Your task to perform on an android device: Show me the alarms in the clock app Image 0: 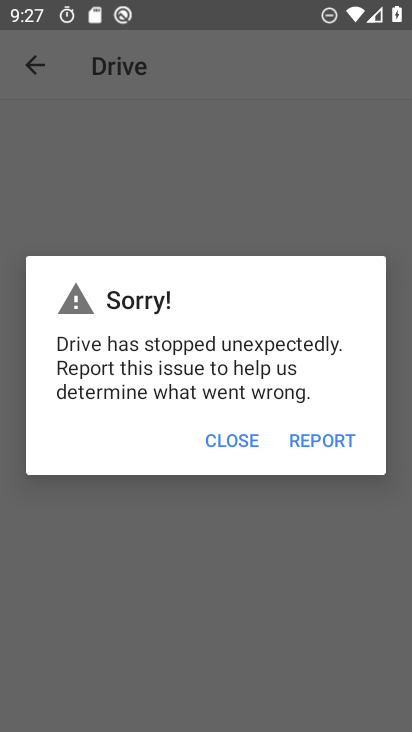
Step 0: press home button
Your task to perform on an android device: Show me the alarms in the clock app Image 1: 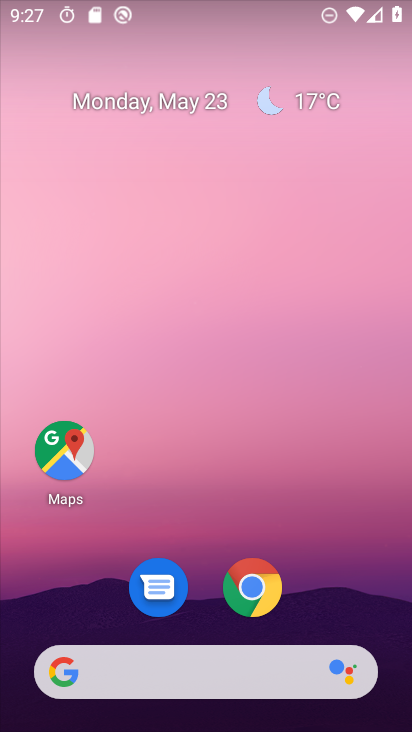
Step 1: drag from (242, 502) to (278, 39)
Your task to perform on an android device: Show me the alarms in the clock app Image 2: 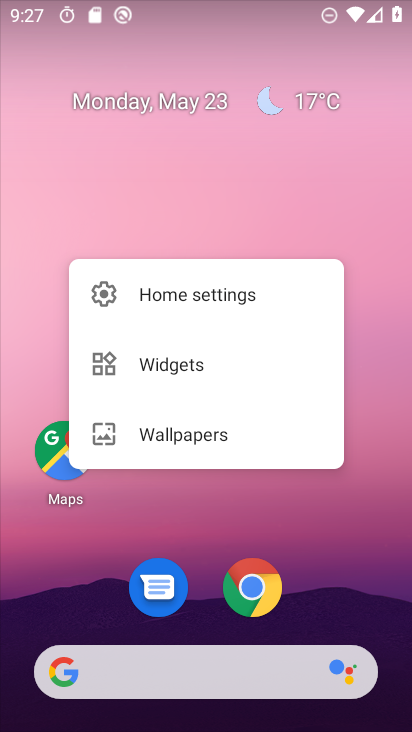
Step 2: click (202, 172)
Your task to perform on an android device: Show me the alarms in the clock app Image 3: 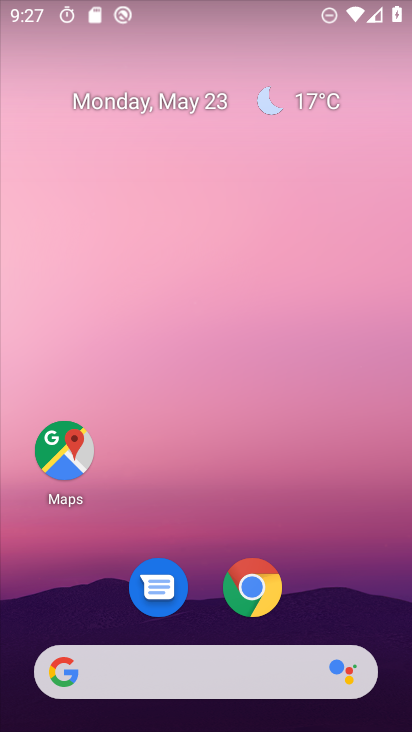
Step 3: drag from (195, 537) to (262, 68)
Your task to perform on an android device: Show me the alarms in the clock app Image 4: 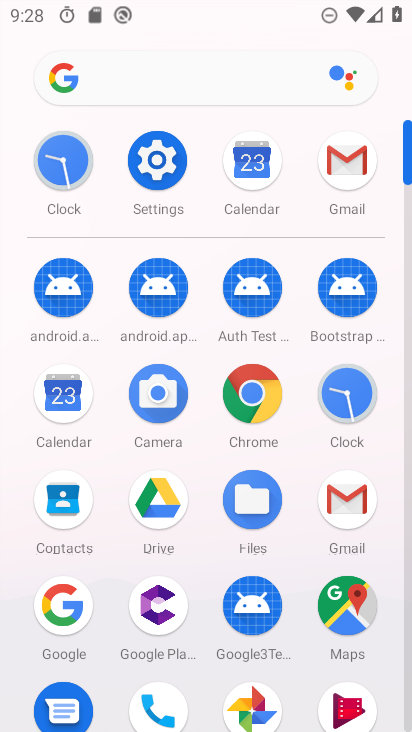
Step 4: click (355, 390)
Your task to perform on an android device: Show me the alarms in the clock app Image 5: 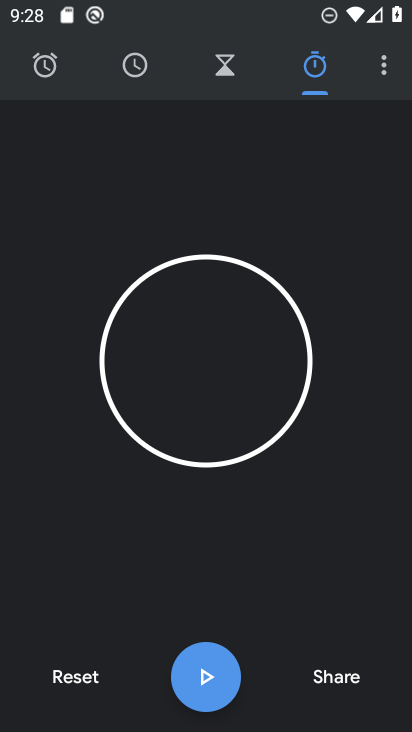
Step 5: click (37, 55)
Your task to perform on an android device: Show me the alarms in the clock app Image 6: 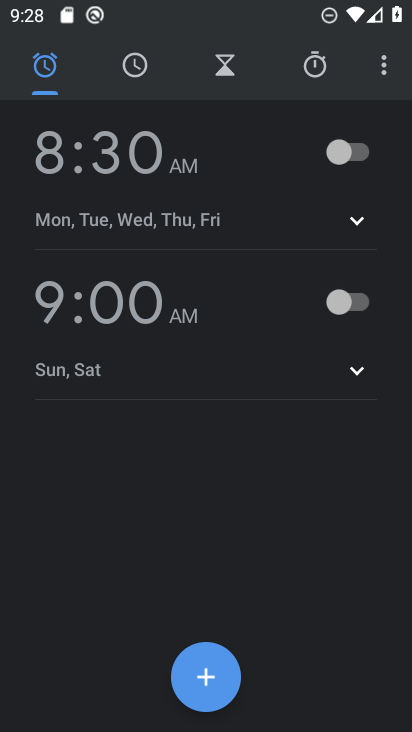
Step 6: task complete